Your task to perform on an android device: see tabs open on other devices in the chrome app Image 0: 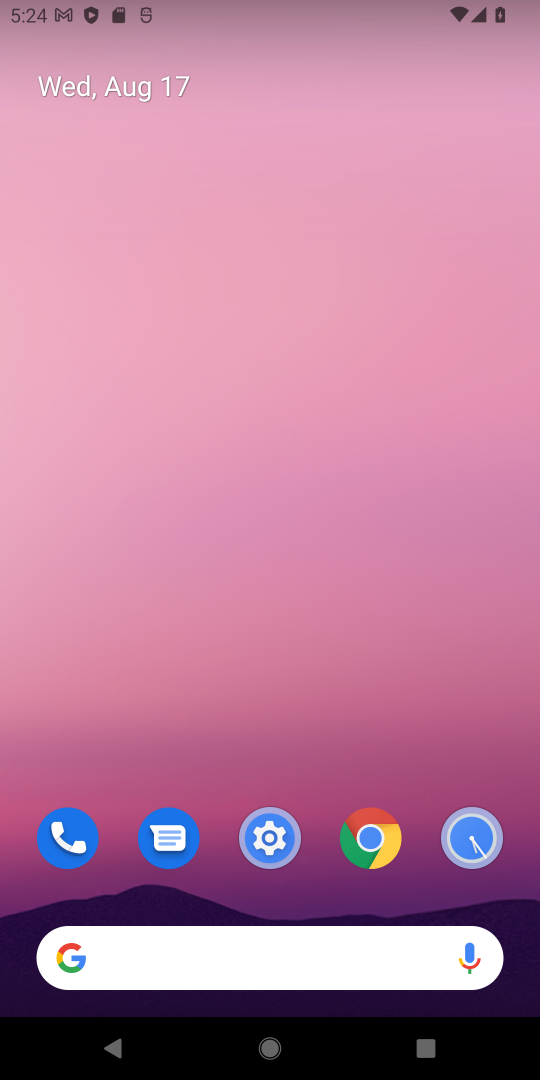
Step 0: press back button
Your task to perform on an android device: see tabs open on other devices in the chrome app Image 1: 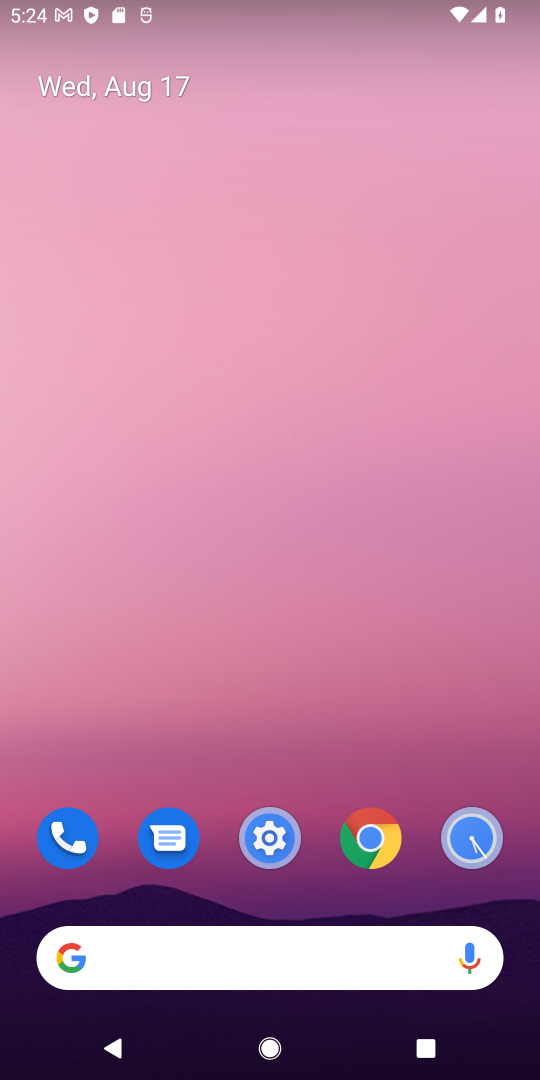
Step 1: drag from (246, 907) to (219, 129)
Your task to perform on an android device: see tabs open on other devices in the chrome app Image 2: 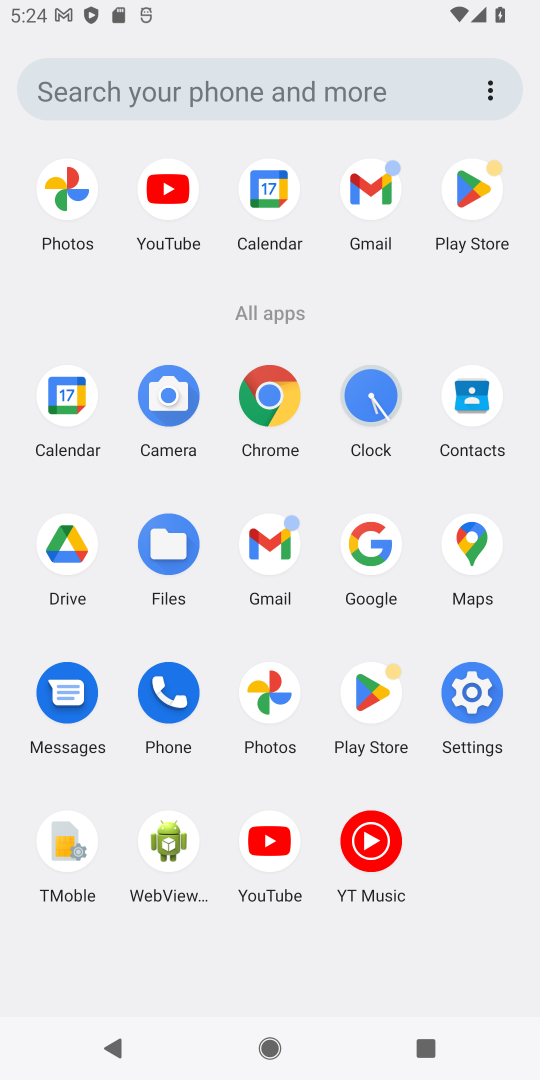
Step 2: click (269, 363)
Your task to perform on an android device: see tabs open on other devices in the chrome app Image 3: 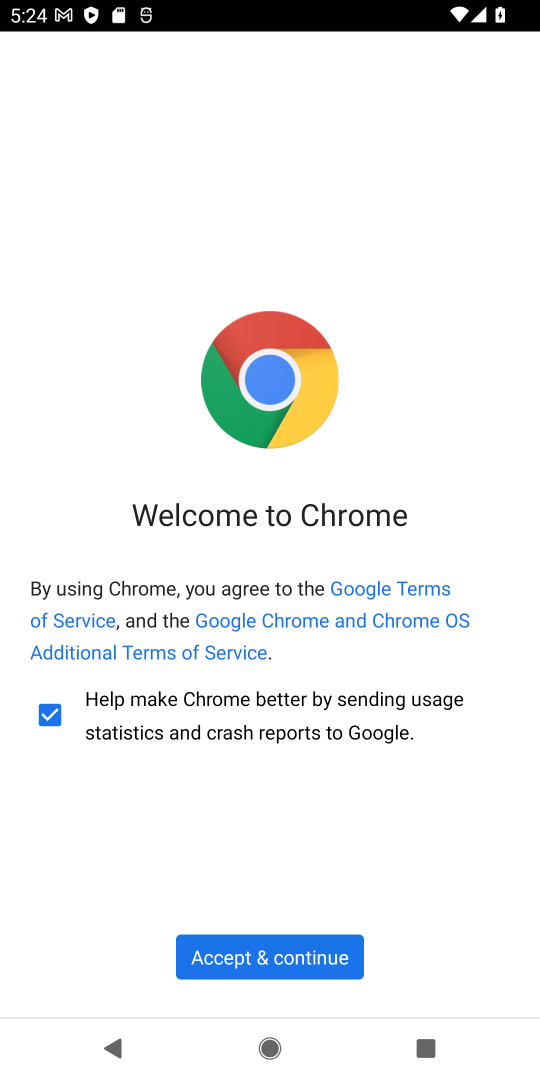
Step 3: click (313, 961)
Your task to perform on an android device: see tabs open on other devices in the chrome app Image 4: 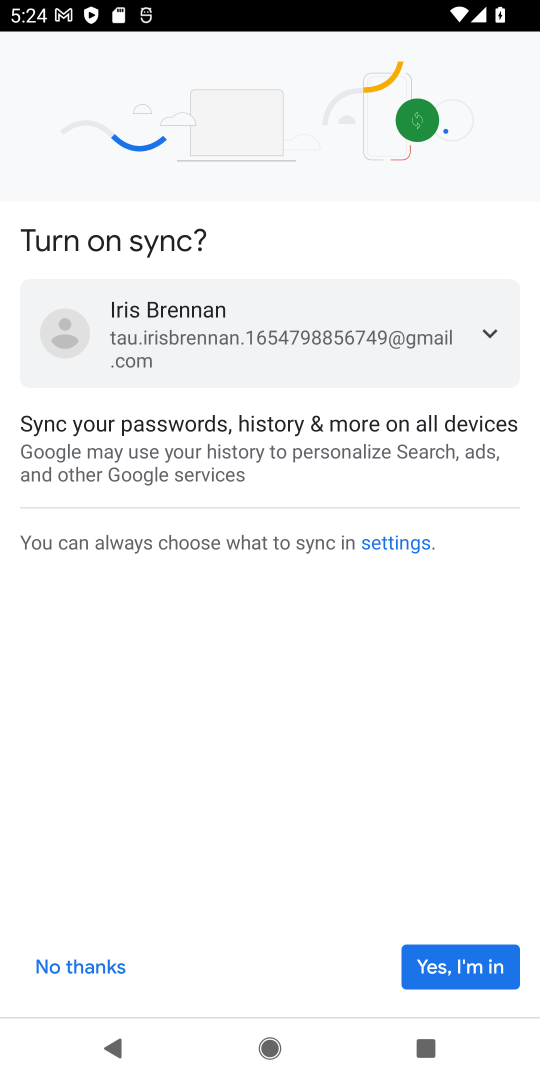
Step 4: click (472, 965)
Your task to perform on an android device: see tabs open on other devices in the chrome app Image 5: 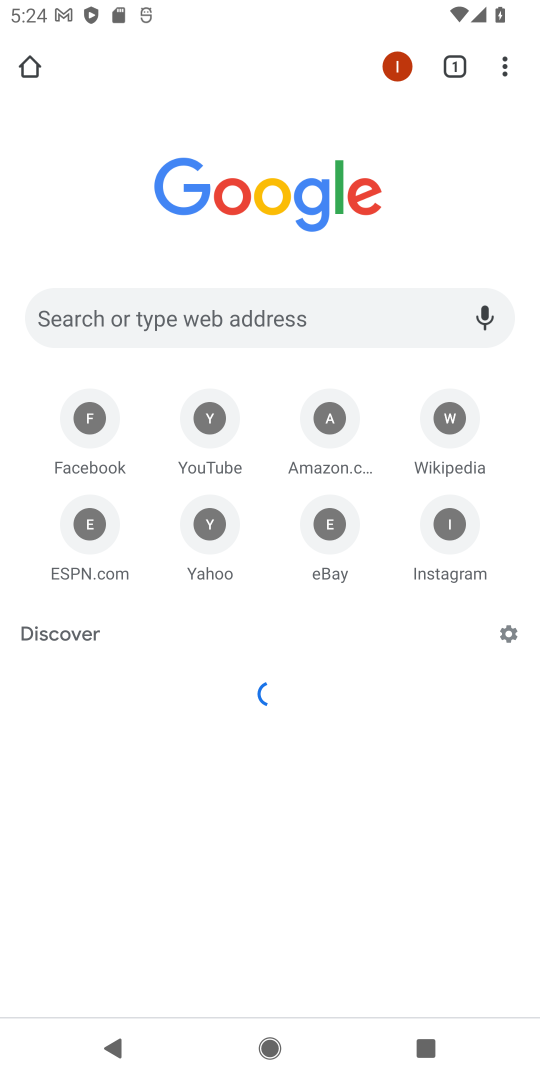
Step 5: click (460, 66)
Your task to perform on an android device: see tabs open on other devices in the chrome app Image 6: 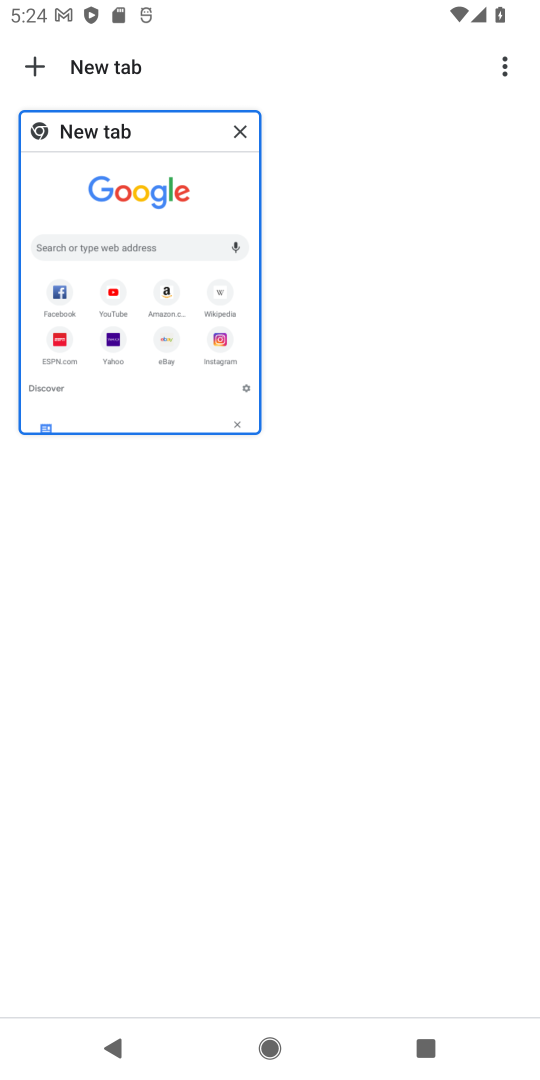
Step 6: task complete